Your task to perform on an android device: Open eBay Image 0: 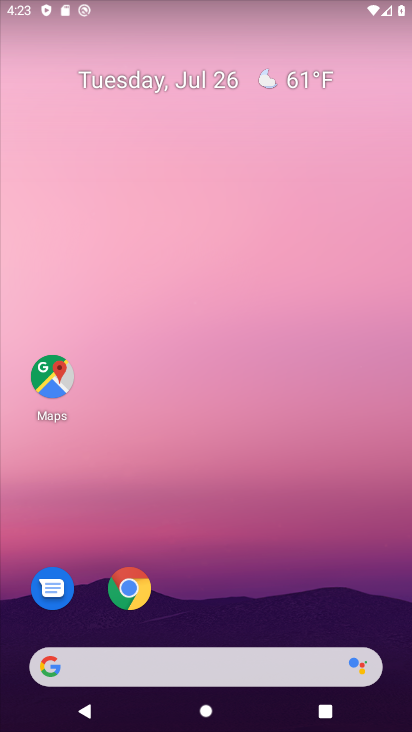
Step 0: drag from (233, 495) to (406, 55)
Your task to perform on an android device: Open eBay Image 1: 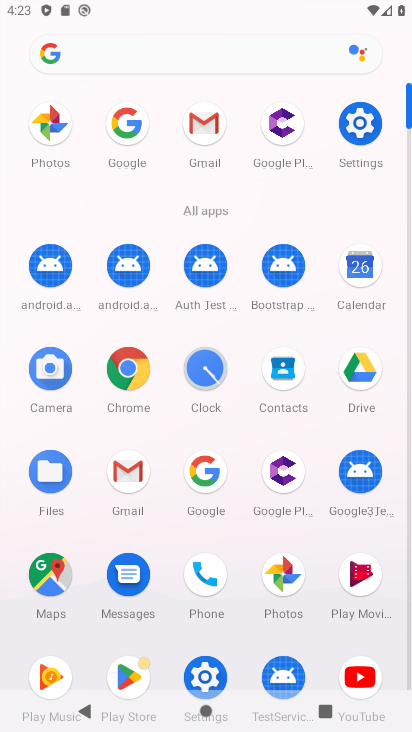
Step 1: click (143, 375)
Your task to perform on an android device: Open eBay Image 2: 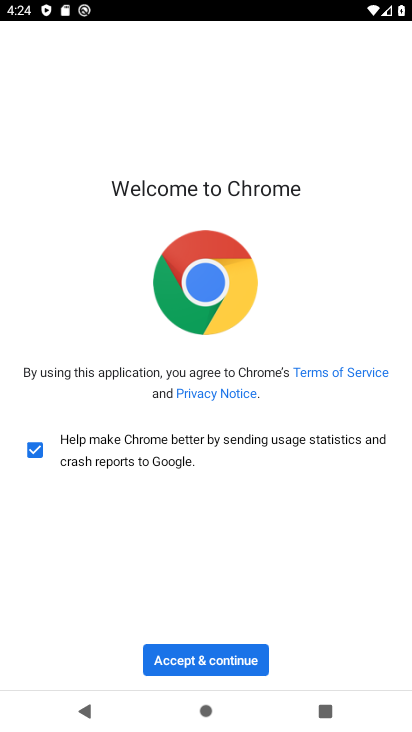
Step 2: click (220, 664)
Your task to perform on an android device: Open eBay Image 3: 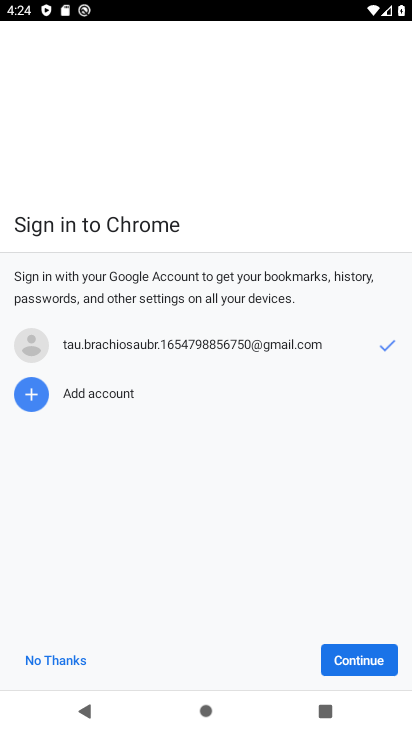
Step 3: click (69, 663)
Your task to perform on an android device: Open eBay Image 4: 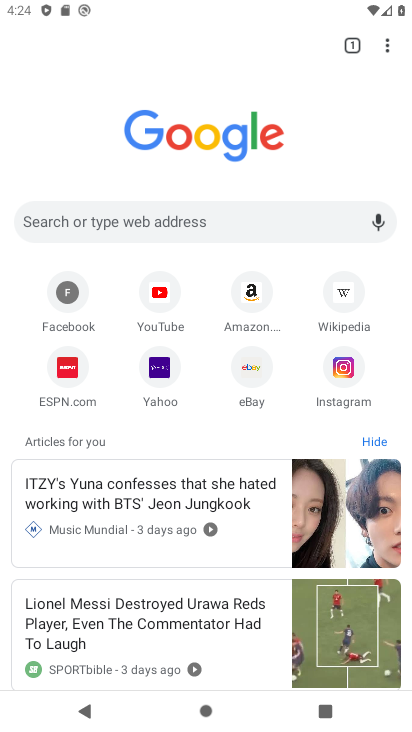
Step 4: click (259, 366)
Your task to perform on an android device: Open eBay Image 5: 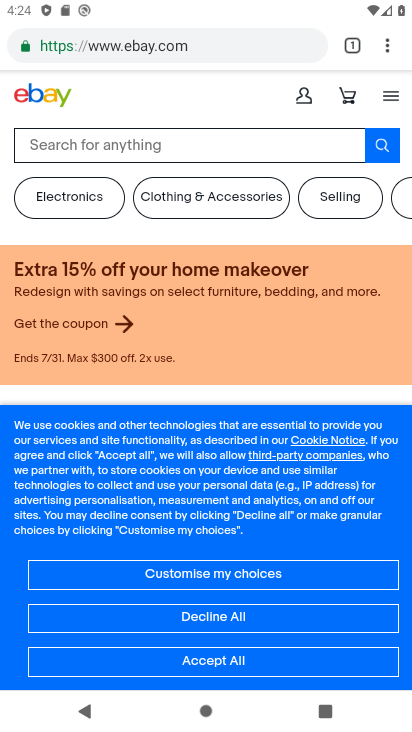
Step 5: task complete